Your task to perform on an android device: turn off airplane mode Image 0: 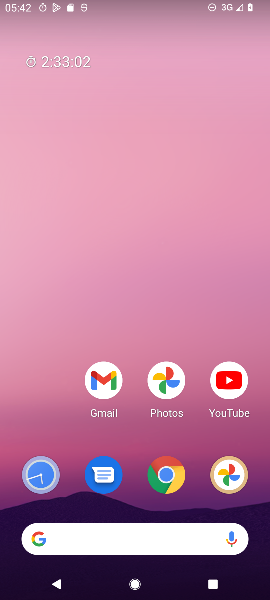
Step 0: press home button
Your task to perform on an android device: turn off airplane mode Image 1: 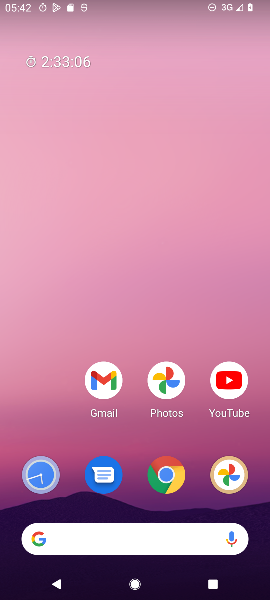
Step 1: drag from (64, 437) to (55, 174)
Your task to perform on an android device: turn off airplane mode Image 2: 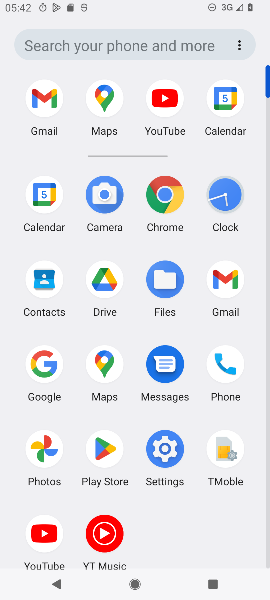
Step 2: click (168, 447)
Your task to perform on an android device: turn off airplane mode Image 3: 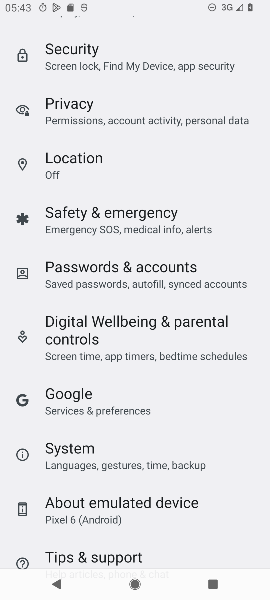
Step 3: drag from (227, 158) to (236, 290)
Your task to perform on an android device: turn off airplane mode Image 4: 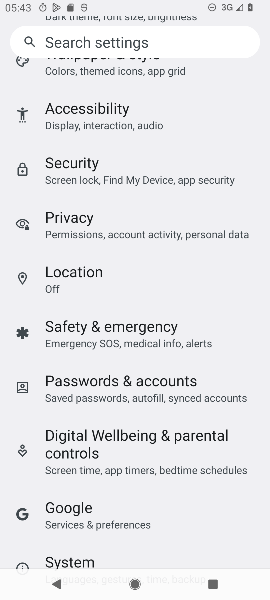
Step 4: drag from (231, 113) to (231, 255)
Your task to perform on an android device: turn off airplane mode Image 5: 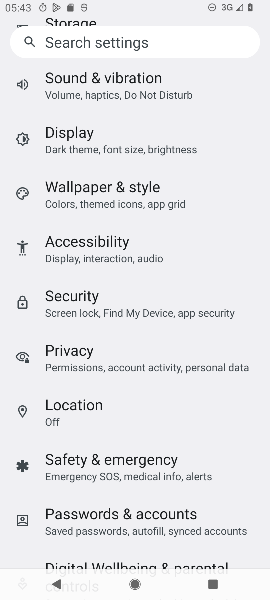
Step 5: drag from (225, 143) to (230, 235)
Your task to perform on an android device: turn off airplane mode Image 6: 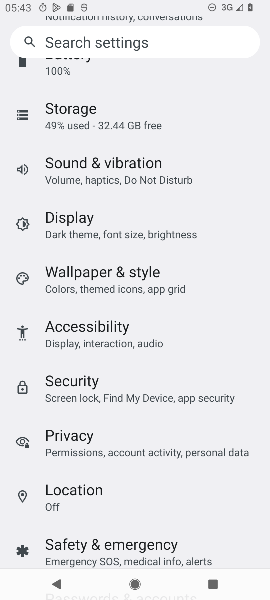
Step 6: drag from (230, 139) to (233, 237)
Your task to perform on an android device: turn off airplane mode Image 7: 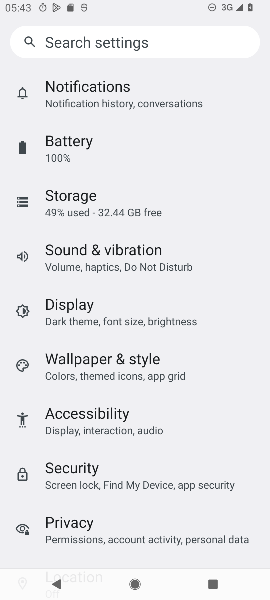
Step 7: drag from (231, 102) to (236, 233)
Your task to perform on an android device: turn off airplane mode Image 8: 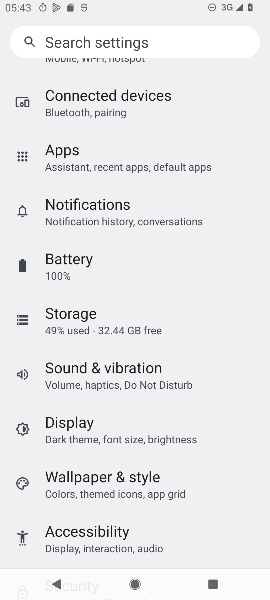
Step 8: drag from (229, 105) to (236, 272)
Your task to perform on an android device: turn off airplane mode Image 9: 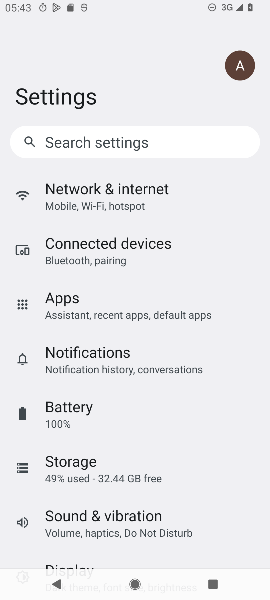
Step 9: click (127, 201)
Your task to perform on an android device: turn off airplane mode Image 10: 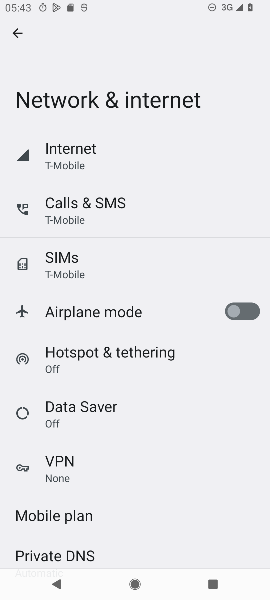
Step 10: task complete